Your task to perform on an android device: turn notification dots off Image 0: 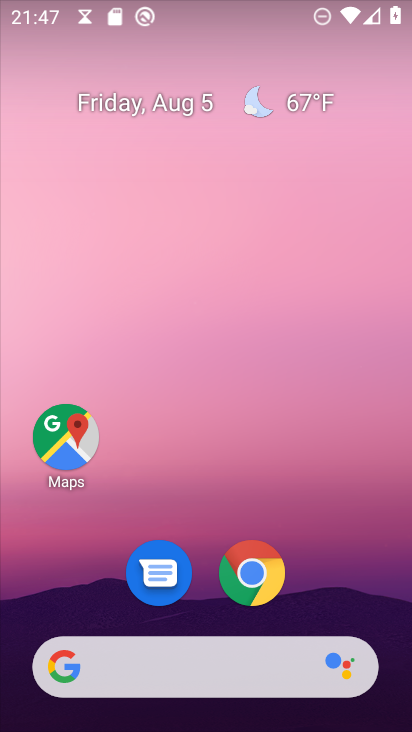
Step 0: drag from (179, 682) to (196, 176)
Your task to perform on an android device: turn notification dots off Image 1: 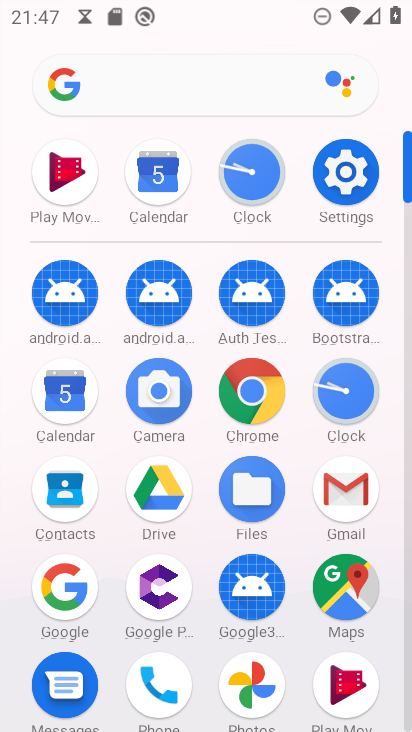
Step 1: click (345, 175)
Your task to perform on an android device: turn notification dots off Image 2: 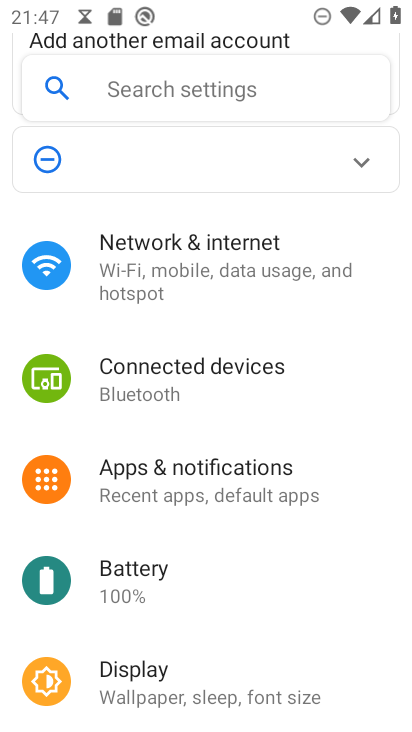
Step 2: click (184, 472)
Your task to perform on an android device: turn notification dots off Image 3: 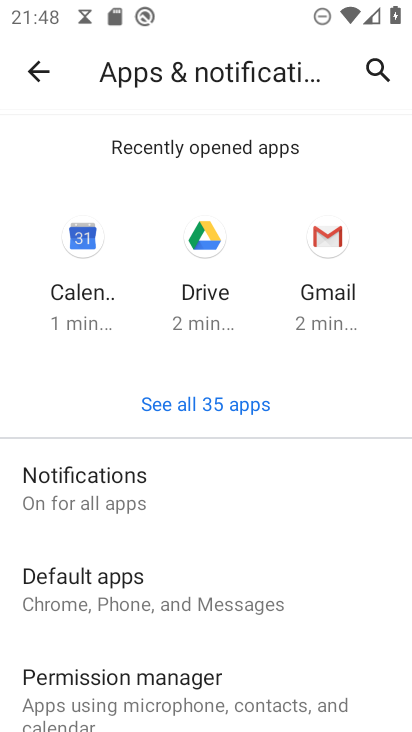
Step 3: click (99, 491)
Your task to perform on an android device: turn notification dots off Image 4: 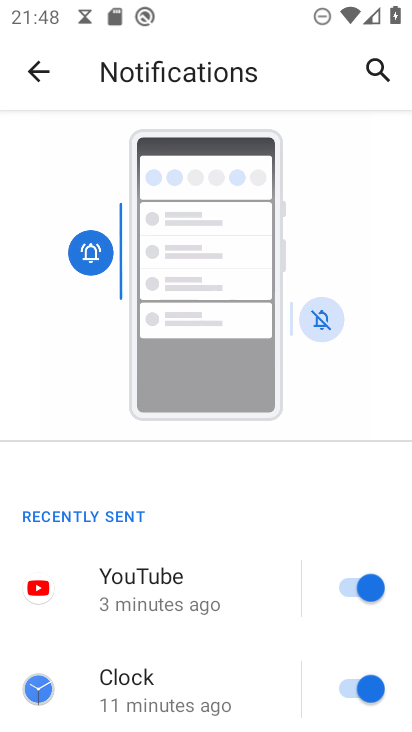
Step 4: drag from (132, 622) to (250, 485)
Your task to perform on an android device: turn notification dots off Image 5: 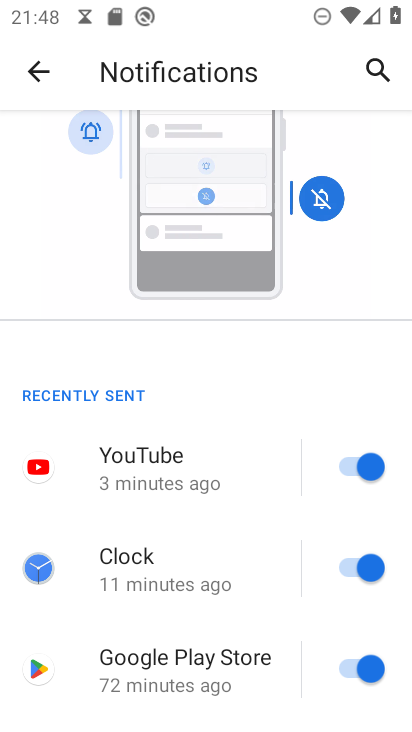
Step 5: drag from (132, 609) to (238, 469)
Your task to perform on an android device: turn notification dots off Image 6: 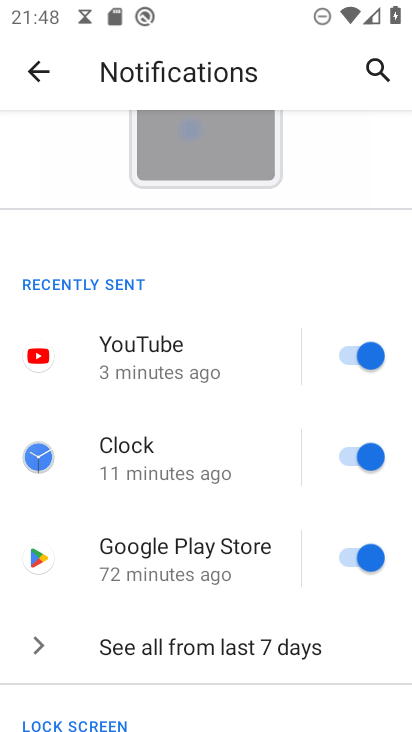
Step 6: drag from (130, 654) to (261, 481)
Your task to perform on an android device: turn notification dots off Image 7: 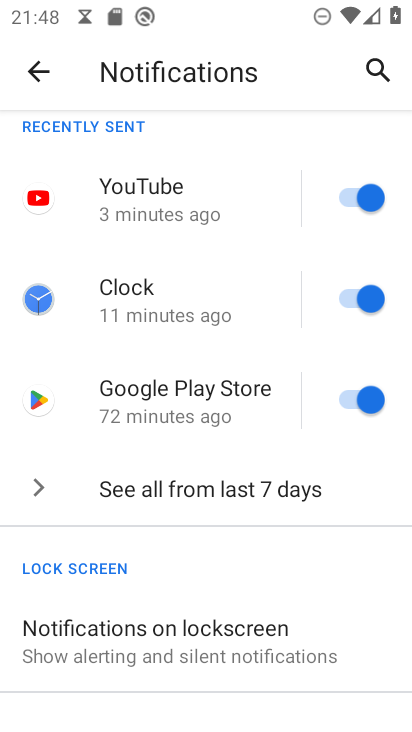
Step 7: drag from (173, 687) to (255, 564)
Your task to perform on an android device: turn notification dots off Image 8: 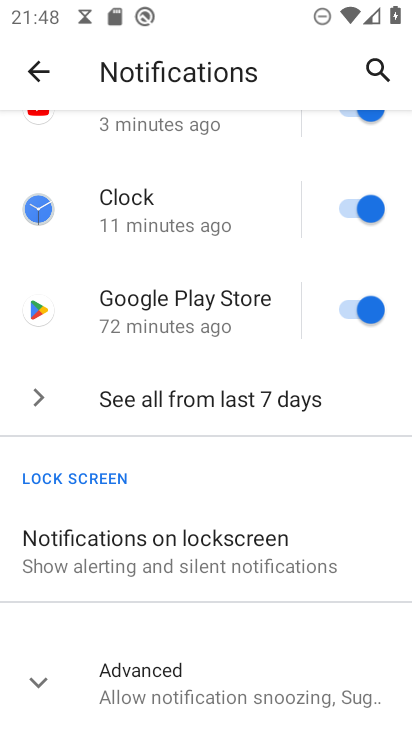
Step 8: click (205, 702)
Your task to perform on an android device: turn notification dots off Image 9: 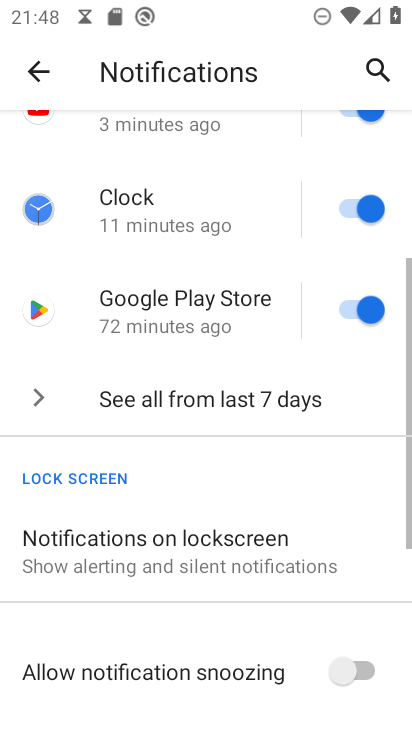
Step 9: drag from (205, 702) to (291, 546)
Your task to perform on an android device: turn notification dots off Image 10: 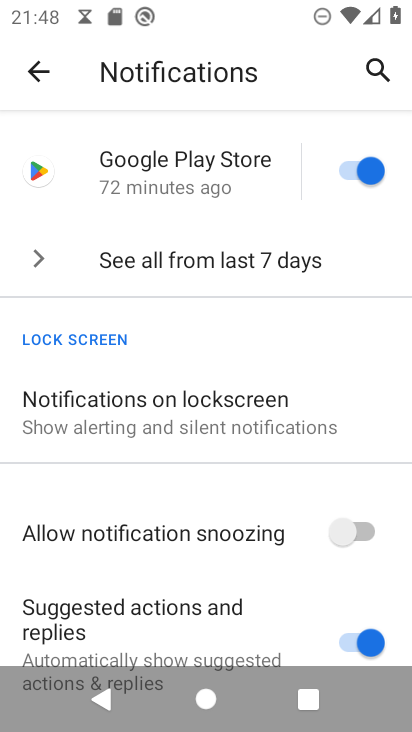
Step 10: drag from (183, 624) to (261, 443)
Your task to perform on an android device: turn notification dots off Image 11: 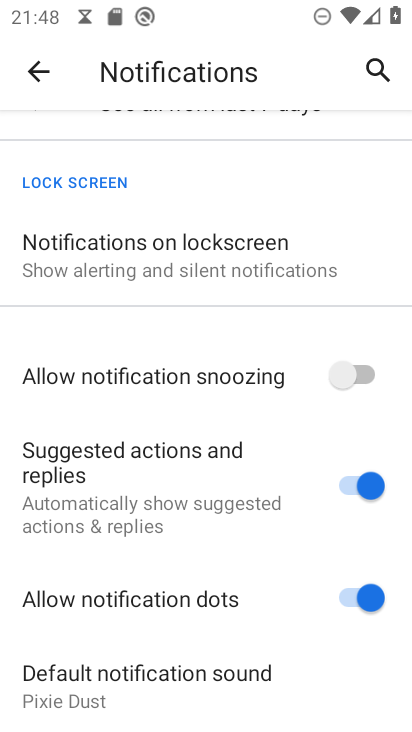
Step 11: click (361, 590)
Your task to perform on an android device: turn notification dots off Image 12: 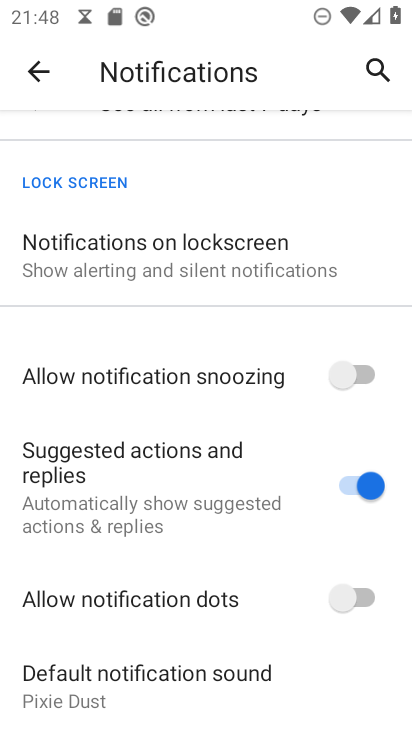
Step 12: task complete